Your task to perform on an android device: turn on airplane mode Image 0: 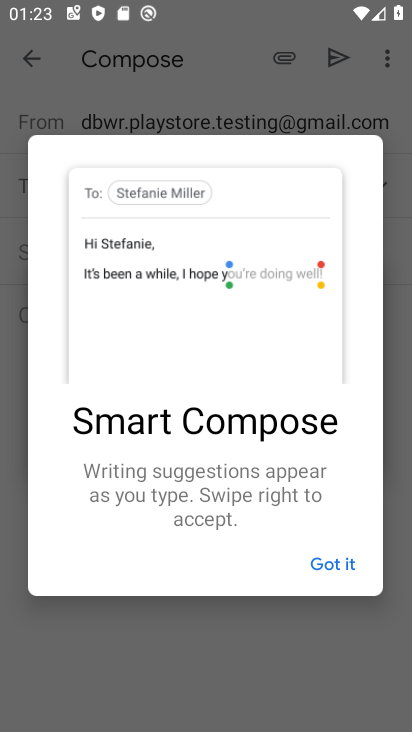
Step 0: press home button
Your task to perform on an android device: turn on airplane mode Image 1: 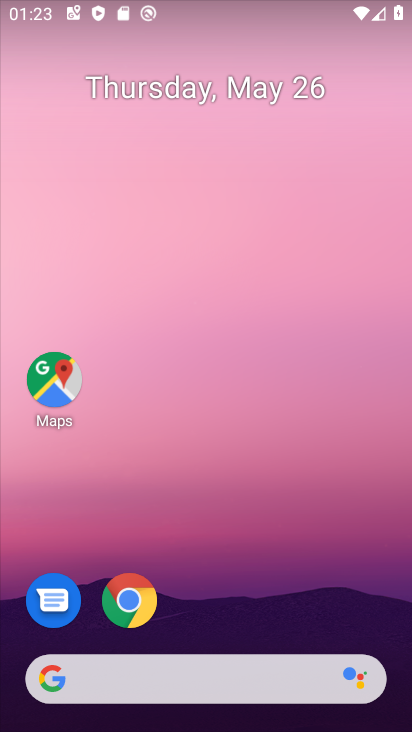
Step 1: drag from (295, 517) to (272, 75)
Your task to perform on an android device: turn on airplane mode Image 2: 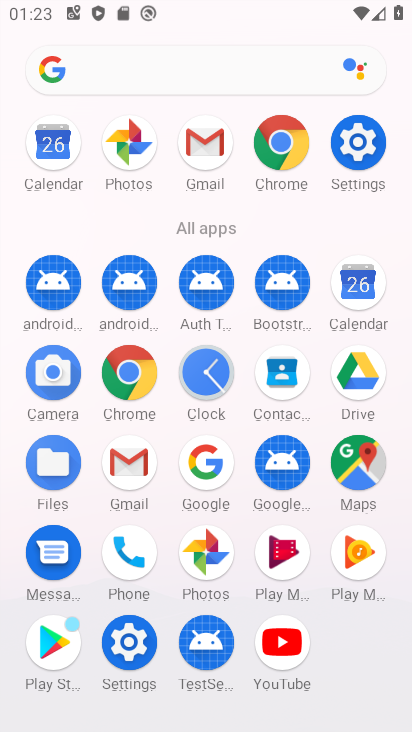
Step 2: click (358, 148)
Your task to perform on an android device: turn on airplane mode Image 3: 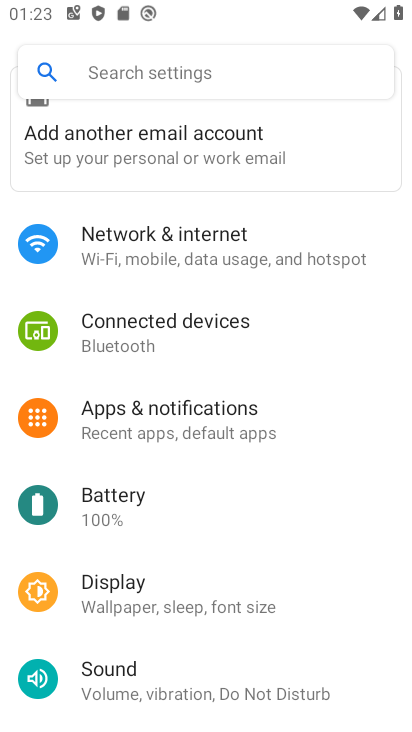
Step 3: click (119, 245)
Your task to perform on an android device: turn on airplane mode Image 4: 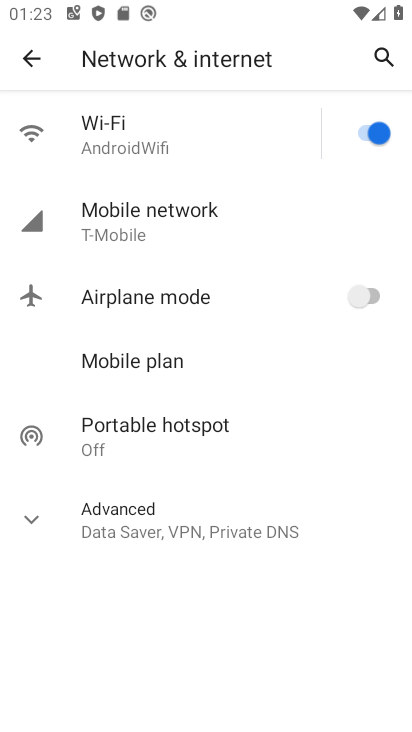
Step 4: click (366, 304)
Your task to perform on an android device: turn on airplane mode Image 5: 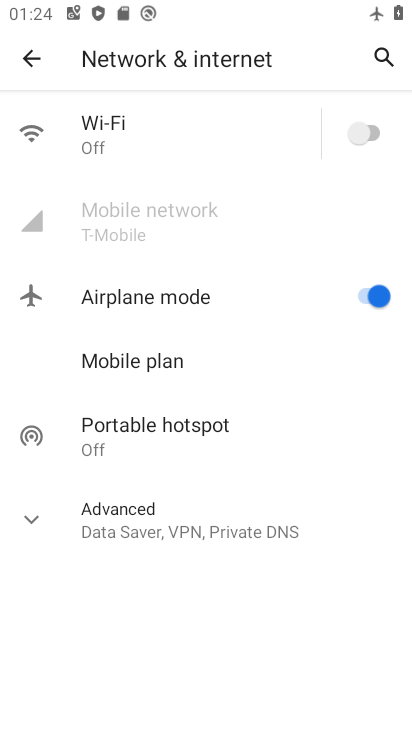
Step 5: task complete